Your task to perform on an android device: Search for Italian restaurants on Maps Image 0: 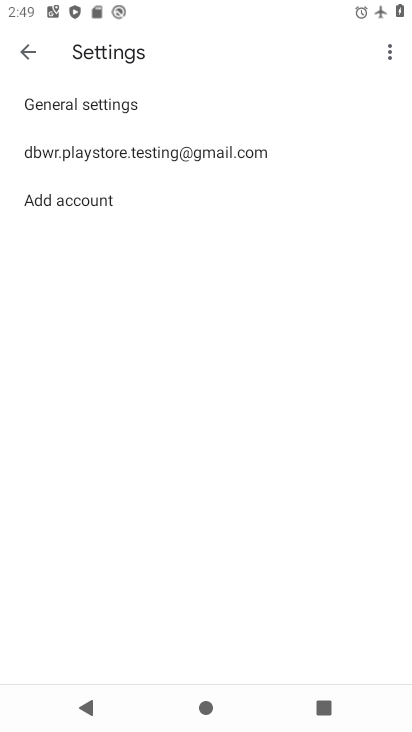
Step 0: press home button
Your task to perform on an android device: Search for Italian restaurants on Maps Image 1: 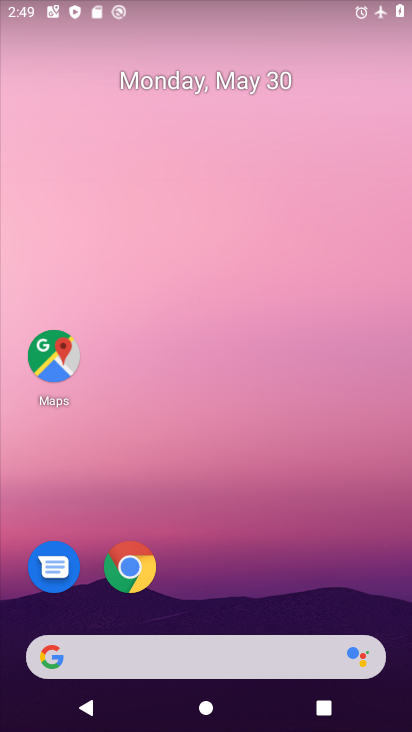
Step 1: click (47, 350)
Your task to perform on an android device: Search for Italian restaurants on Maps Image 2: 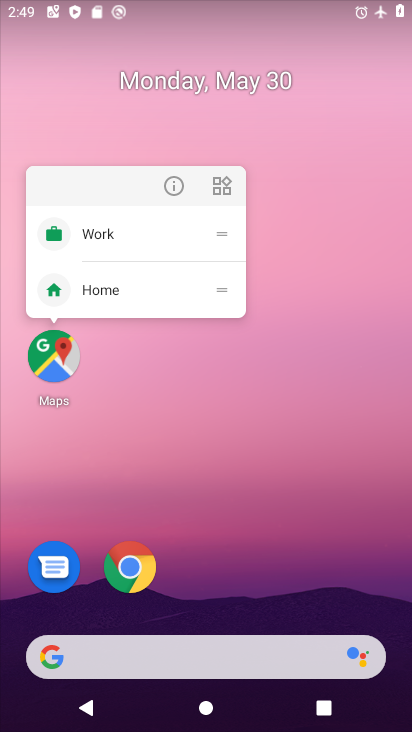
Step 2: click (41, 354)
Your task to perform on an android device: Search for Italian restaurants on Maps Image 3: 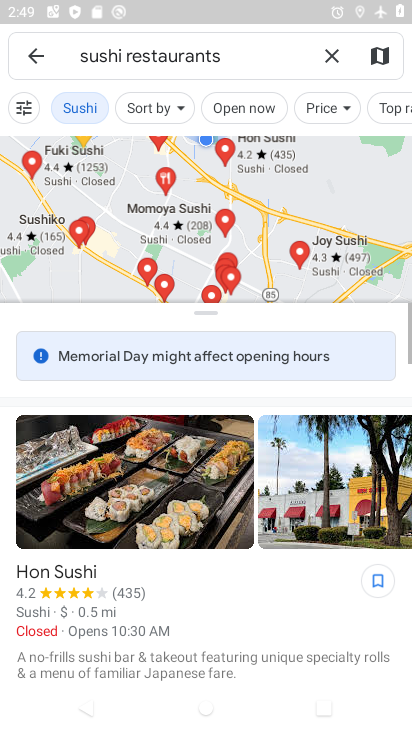
Step 3: click (109, 56)
Your task to perform on an android device: Search for Italian restaurants on Maps Image 4: 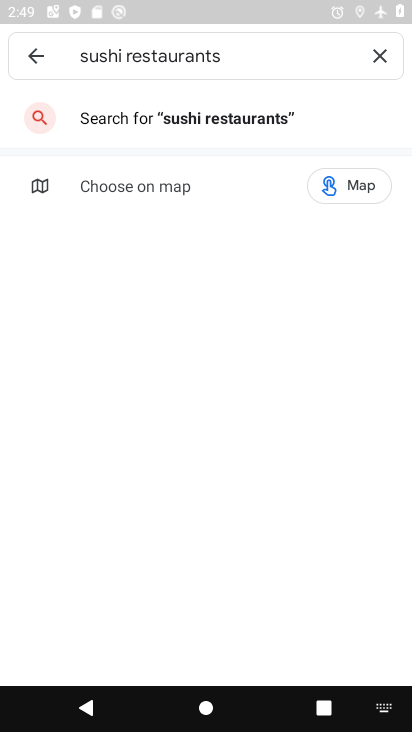
Step 4: click (109, 58)
Your task to perform on an android device: Search for Italian restaurants on Maps Image 5: 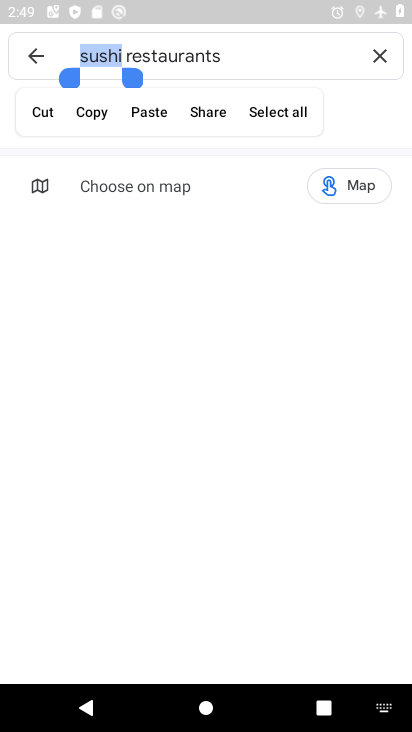
Step 5: type "italian"
Your task to perform on an android device: Search for Italian restaurants on Maps Image 6: 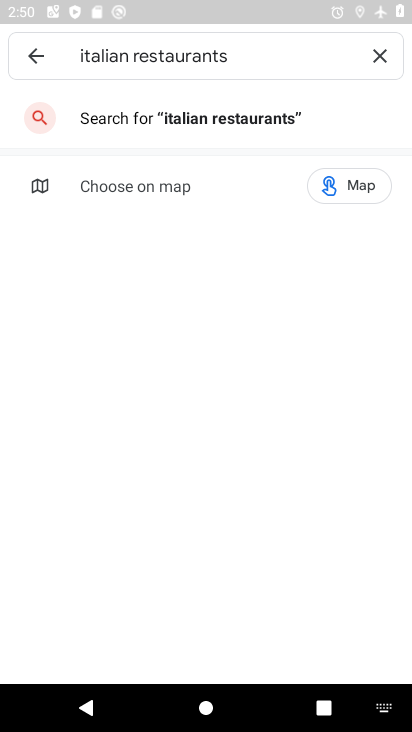
Step 6: task complete